Your task to perform on an android device: change the clock display to show seconds Image 0: 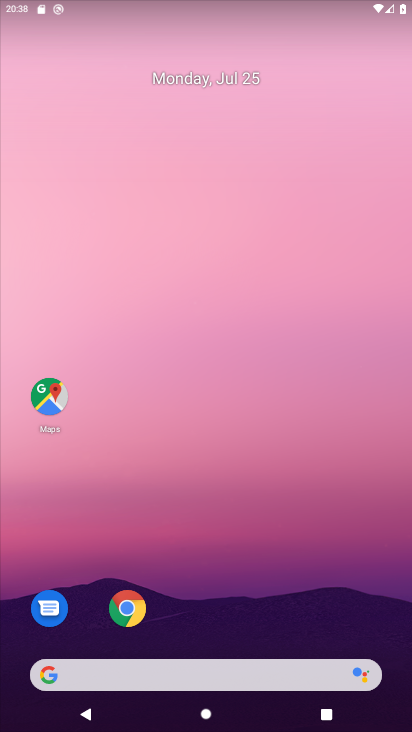
Step 0: drag from (269, 604) to (399, 38)
Your task to perform on an android device: change the clock display to show seconds Image 1: 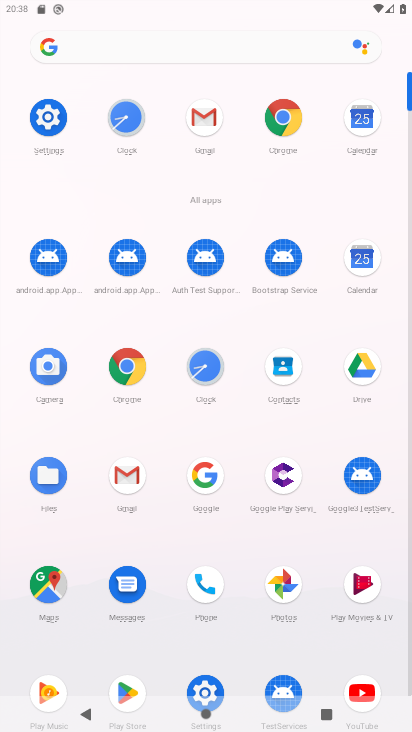
Step 1: click (129, 112)
Your task to perform on an android device: change the clock display to show seconds Image 2: 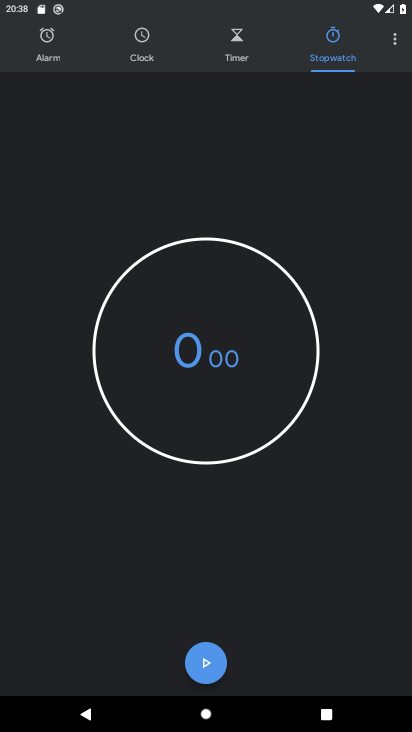
Step 2: click (400, 29)
Your task to perform on an android device: change the clock display to show seconds Image 3: 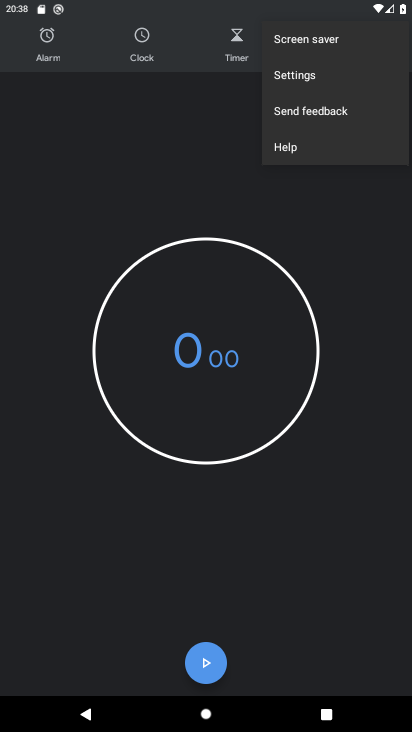
Step 3: click (310, 75)
Your task to perform on an android device: change the clock display to show seconds Image 4: 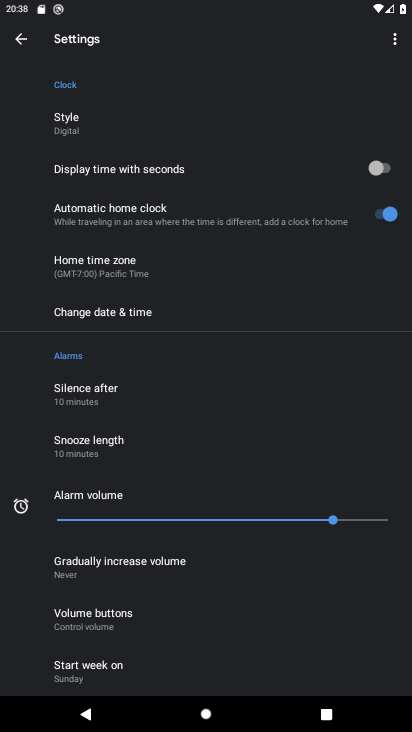
Step 4: click (384, 173)
Your task to perform on an android device: change the clock display to show seconds Image 5: 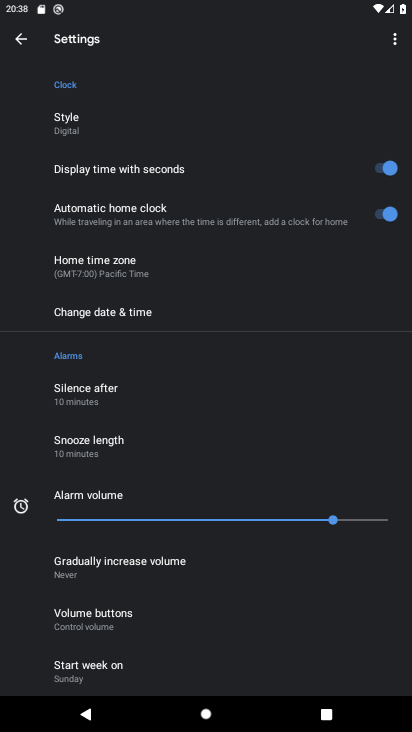
Step 5: task complete